Your task to perform on an android device: toggle wifi Image 0: 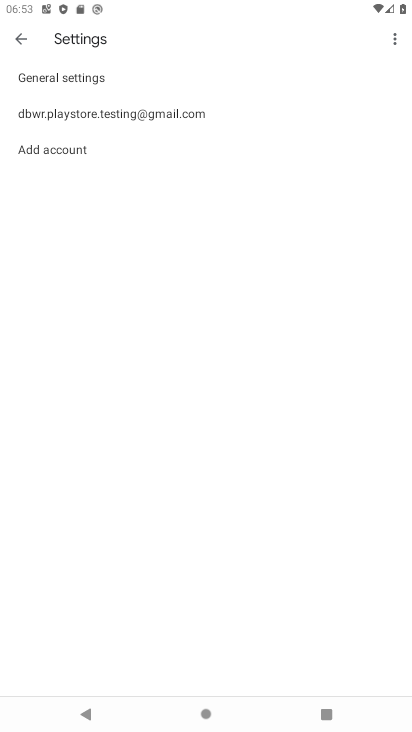
Step 0: press home button
Your task to perform on an android device: toggle wifi Image 1: 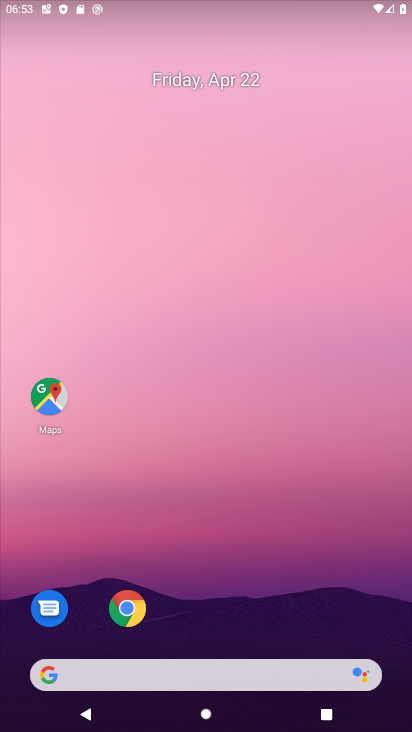
Step 1: drag from (274, 607) to (259, 139)
Your task to perform on an android device: toggle wifi Image 2: 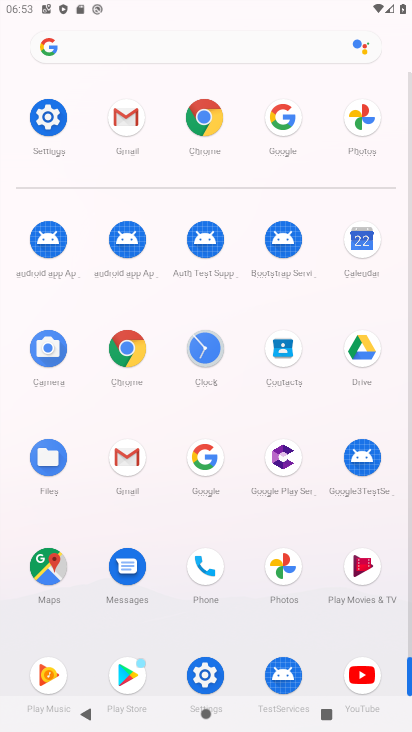
Step 2: click (45, 125)
Your task to perform on an android device: toggle wifi Image 3: 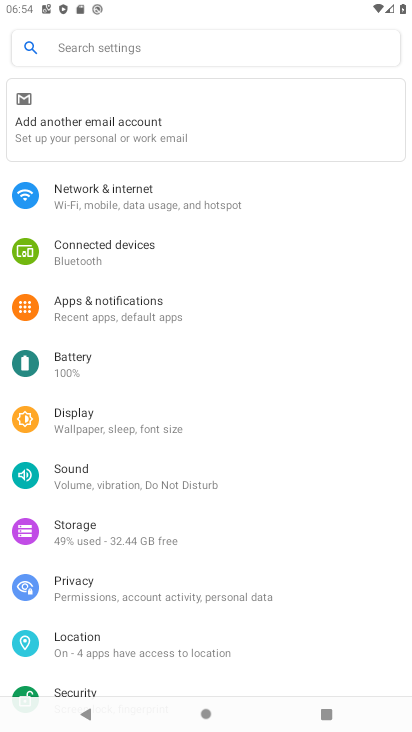
Step 3: click (112, 198)
Your task to perform on an android device: toggle wifi Image 4: 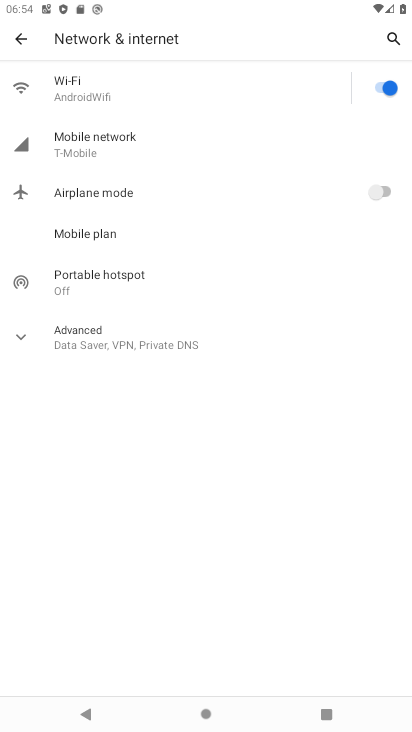
Step 4: click (382, 89)
Your task to perform on an android device: toggle wifi Image 5: 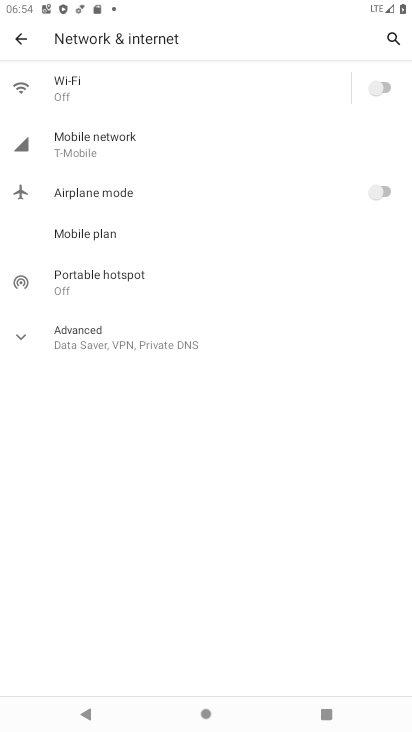
Step 5: task complete